Your task to perform on an android device: visit the assistant section in the google photos Image 0: 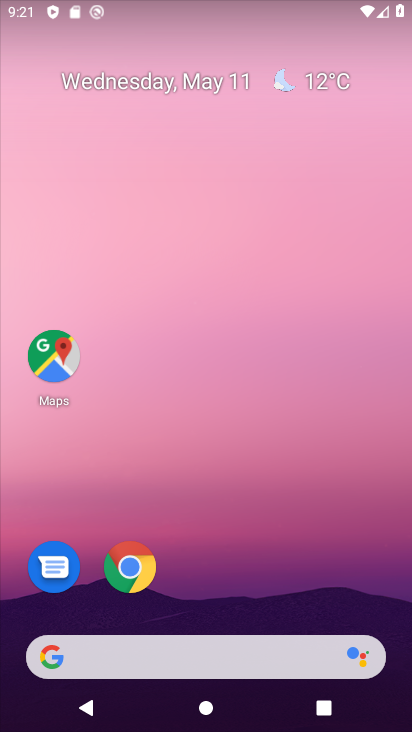
Step 0: drag from (194, 543) to (225, 187)
Your task to perform on an android device: visit the assistant section in the google photos Image 1: 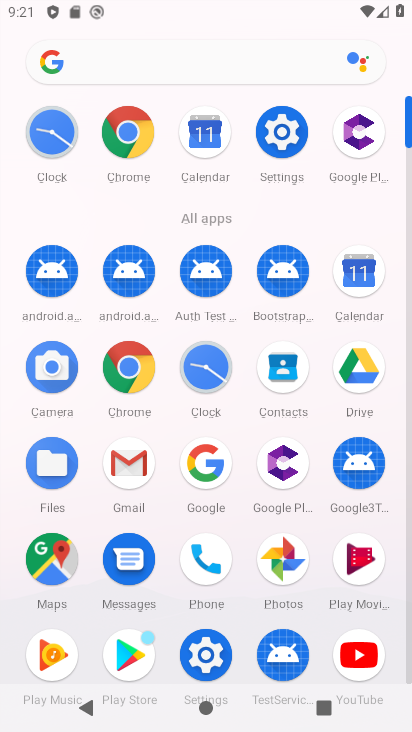
Step 1: click (277, 560)
Your task to perform on an android device: visit the assistant section in the google photos Image 2: 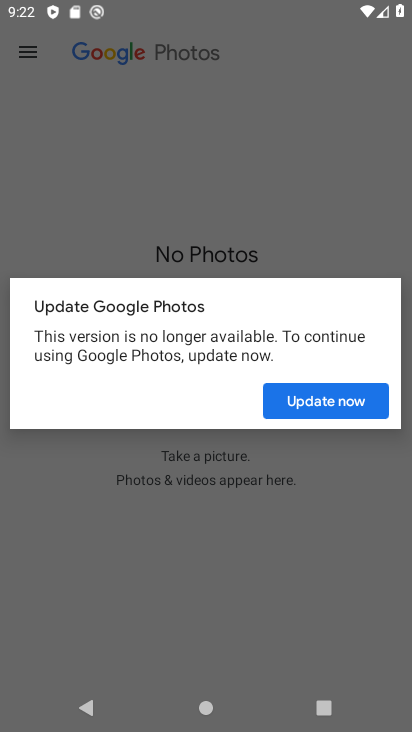
Step 2: click (297, 402)
Your task to perform on an android device: visit the assistant section in the google photos Image 3: 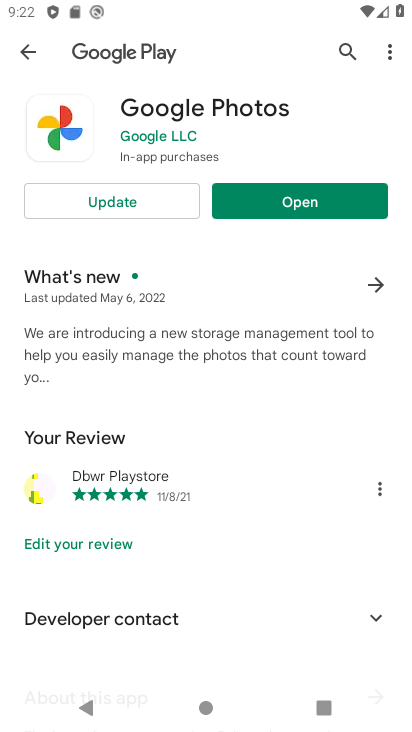
Step 3: click (160, 198)
Your task to perform on an android device: visit the assistant section in the google photos Image 4: 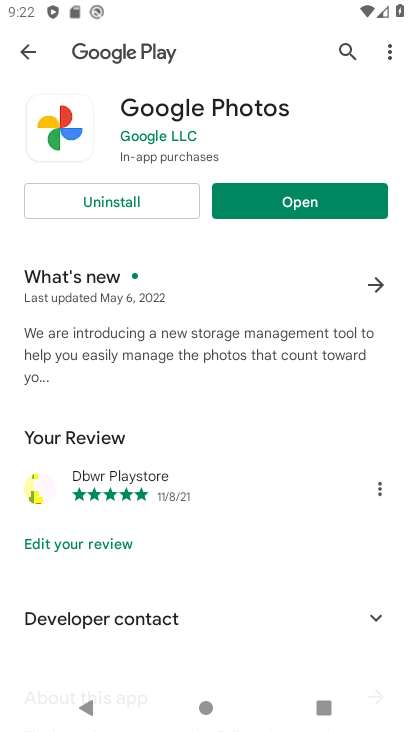
Step 4: click (297, 204)
Your task to perform on an android device: visit the assistant section in the google photos Image 5: 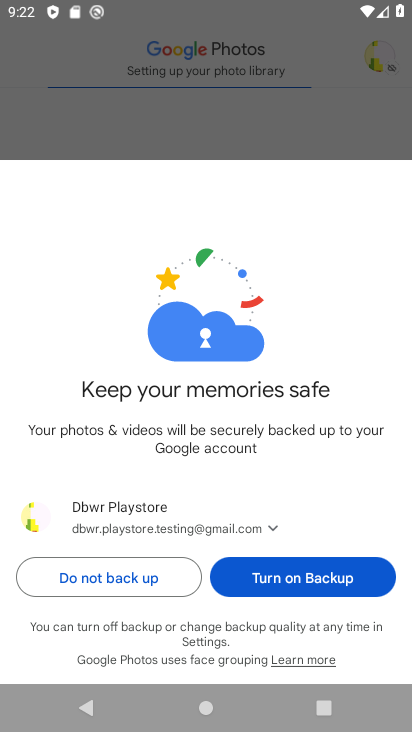
Step 5: task complete